Your task to perform on an android device: Clear all items from cart on costco.com. Search for logitech g pro on costco.com, select the first entry, and add it to the cart. Image 0: 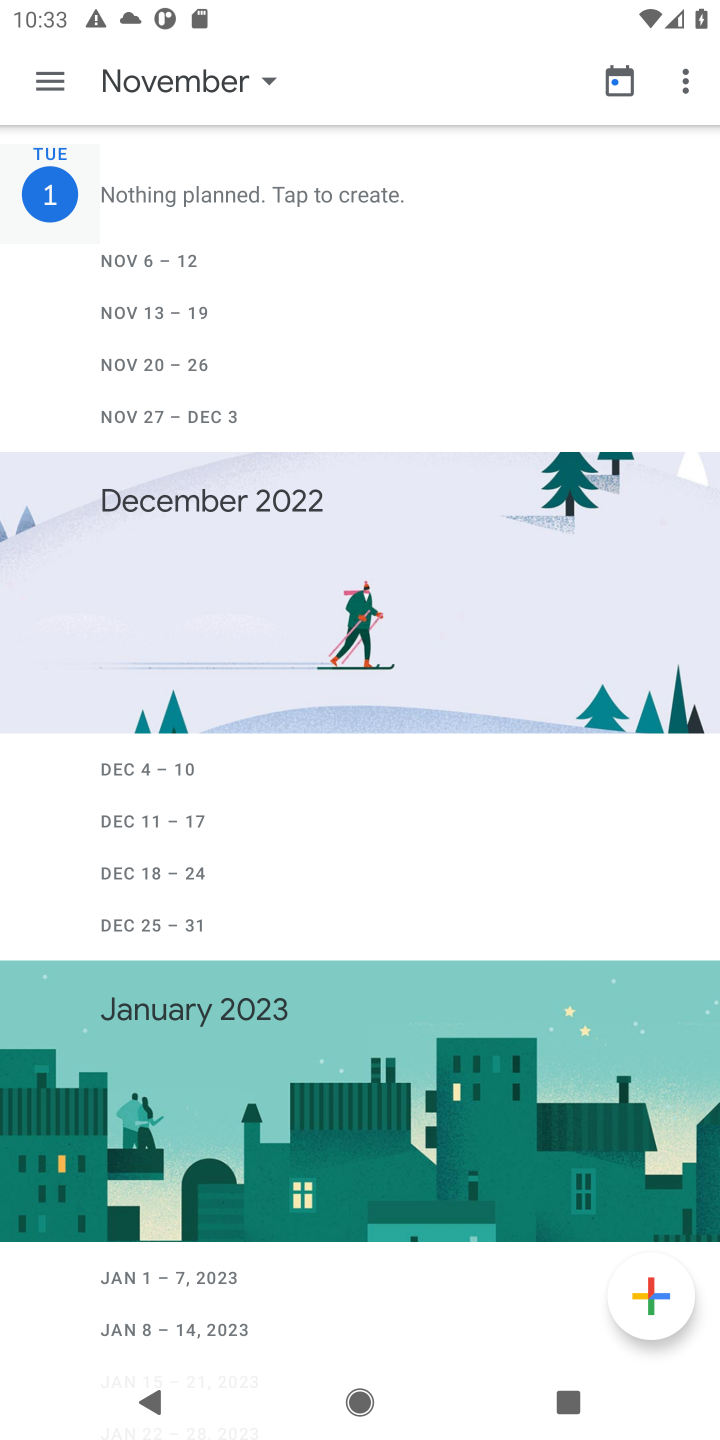
Step 0: press home button
Your task to perform on an android device: Clear all items from cart on costco.com. Search for logitech g pro on costco.com, select the first entry, and add it to the cart. Image 1: 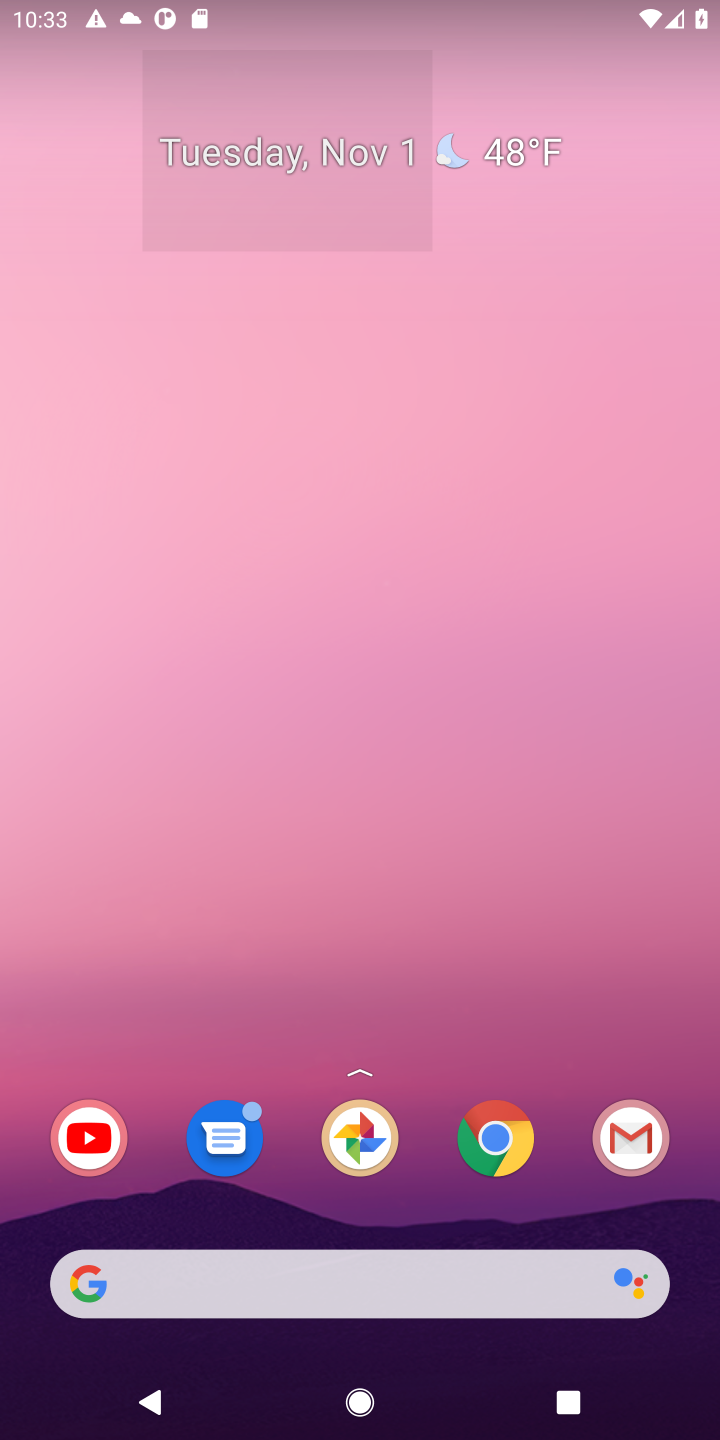
Step 1: drag from (444, 1039) to (447, 115)
Your task to perform on an android device: Clear all items from cart on costco.com. Search for logitech g pro on costco.com, select the first entry, and add it to the cart. Image 2: 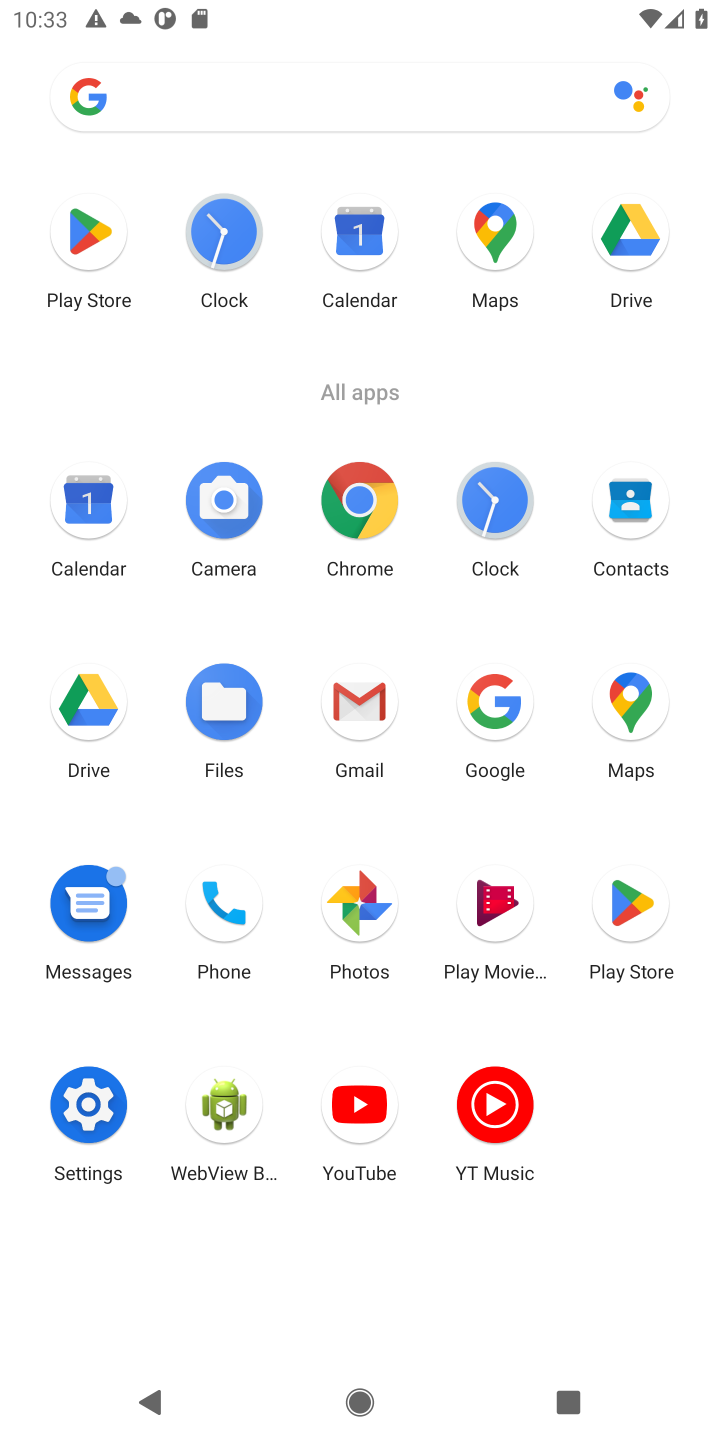
Step 2: click (371, 491)
Your task to perform on an android device: Clear all items from cart on costco.com. Search for logitech g pro on costco.com, select the first entry, and add it to the cart. Image 3: 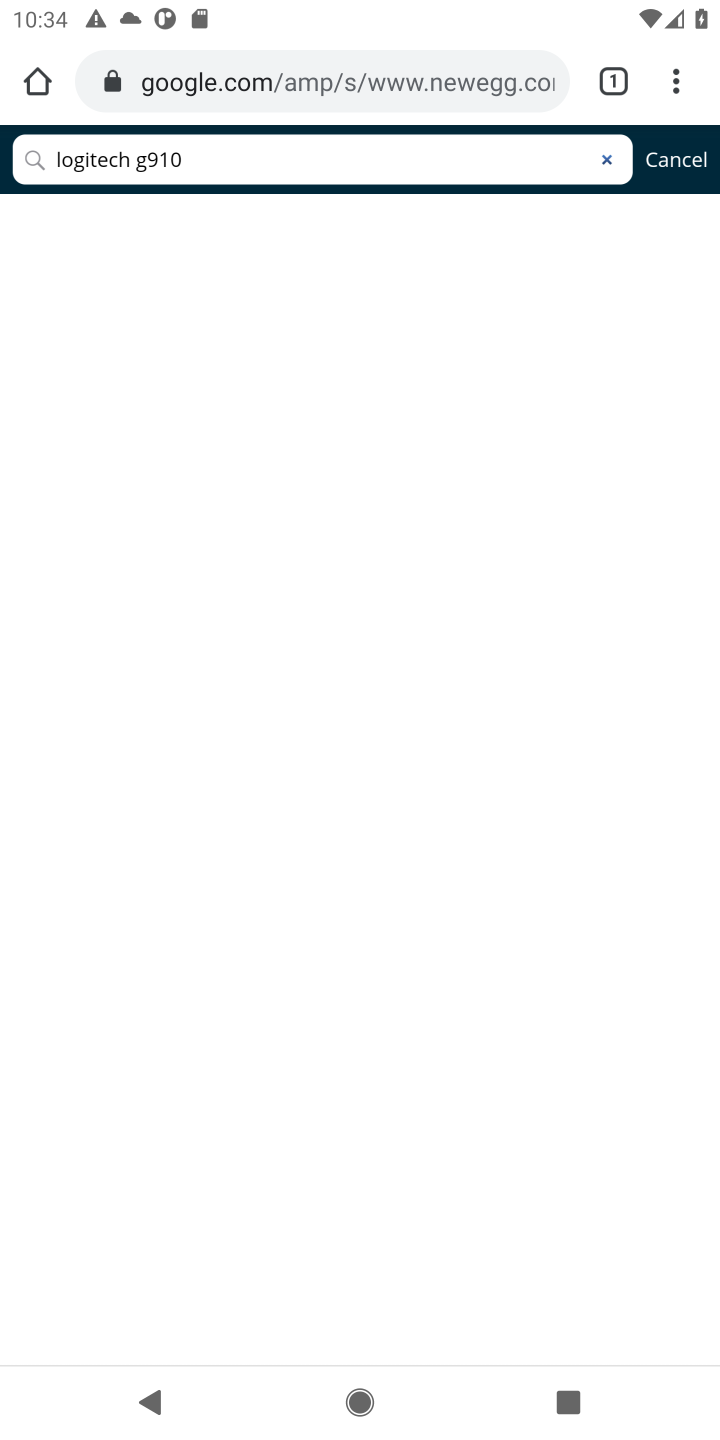
Step 3: click (244, 86)
Your task to perform on an android device: Clear all items from cart on costco.com. Search for logitech g pro on costco.com, select the first entry, and add it to the cart. Image 4: 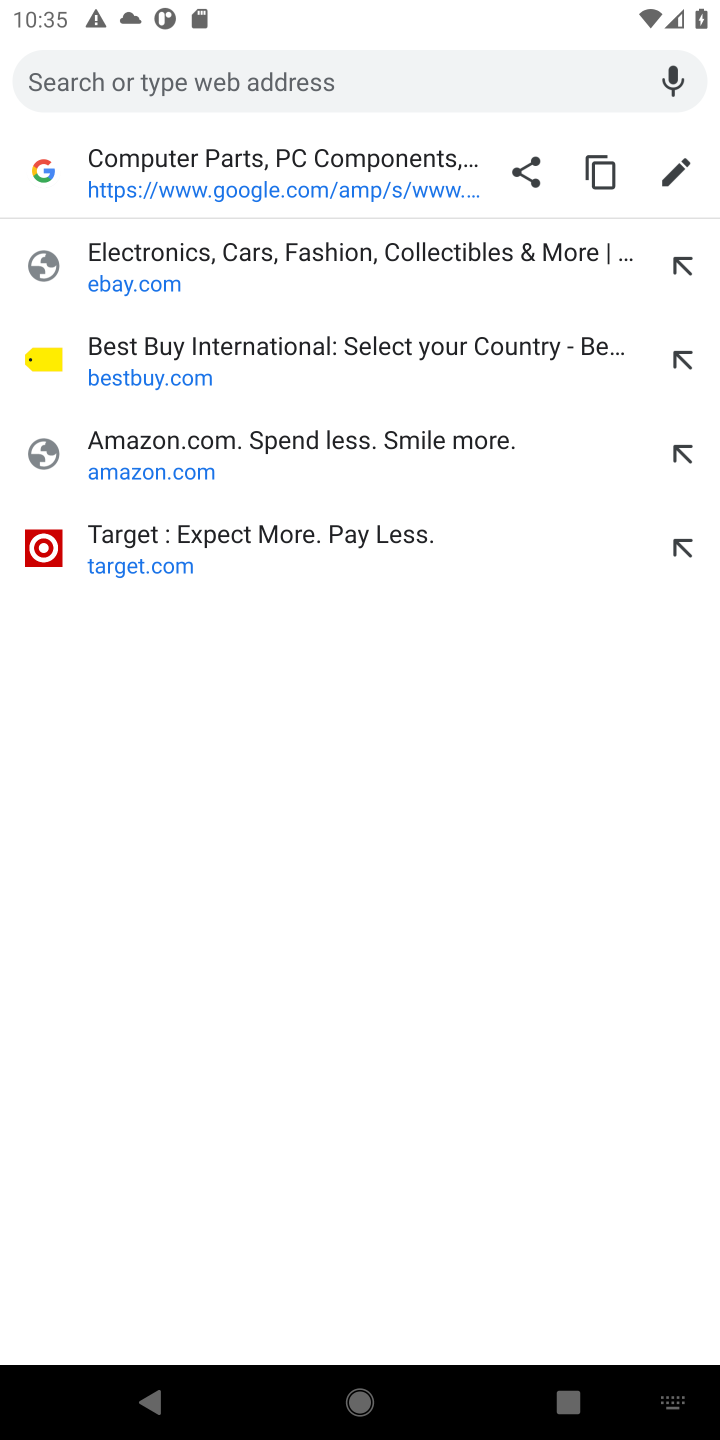
Step 4: type "costco"
Your task to perform on an android device: Clear all items from cart on costco.com. Search for logitech g pro on costco.com, select the first entry, and add it to the cart. Image 5: 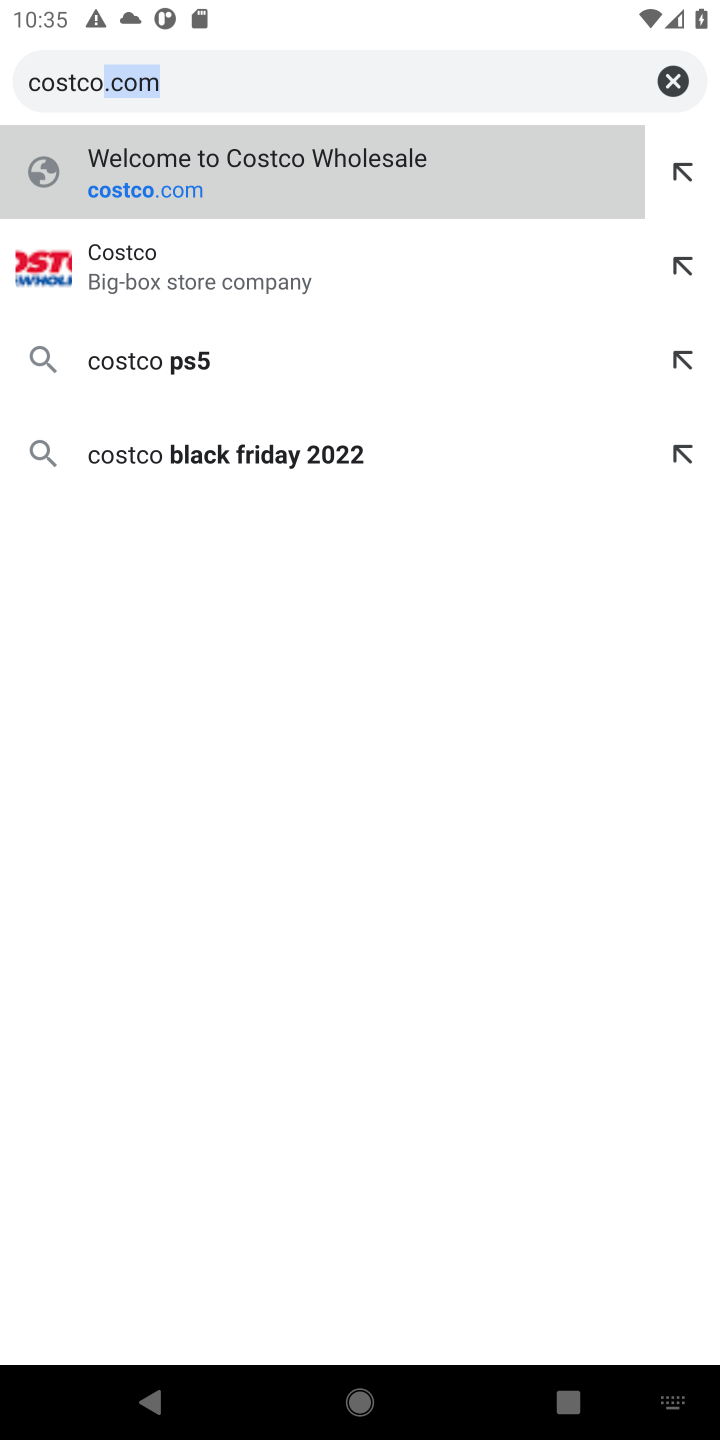
Step 5: click (194, 252)
Your task to perform on an android device: Clear all items from cart on costco.com. Search for logitech g pro on costco.com, select the first entry, and add it to the cart. Image 6: 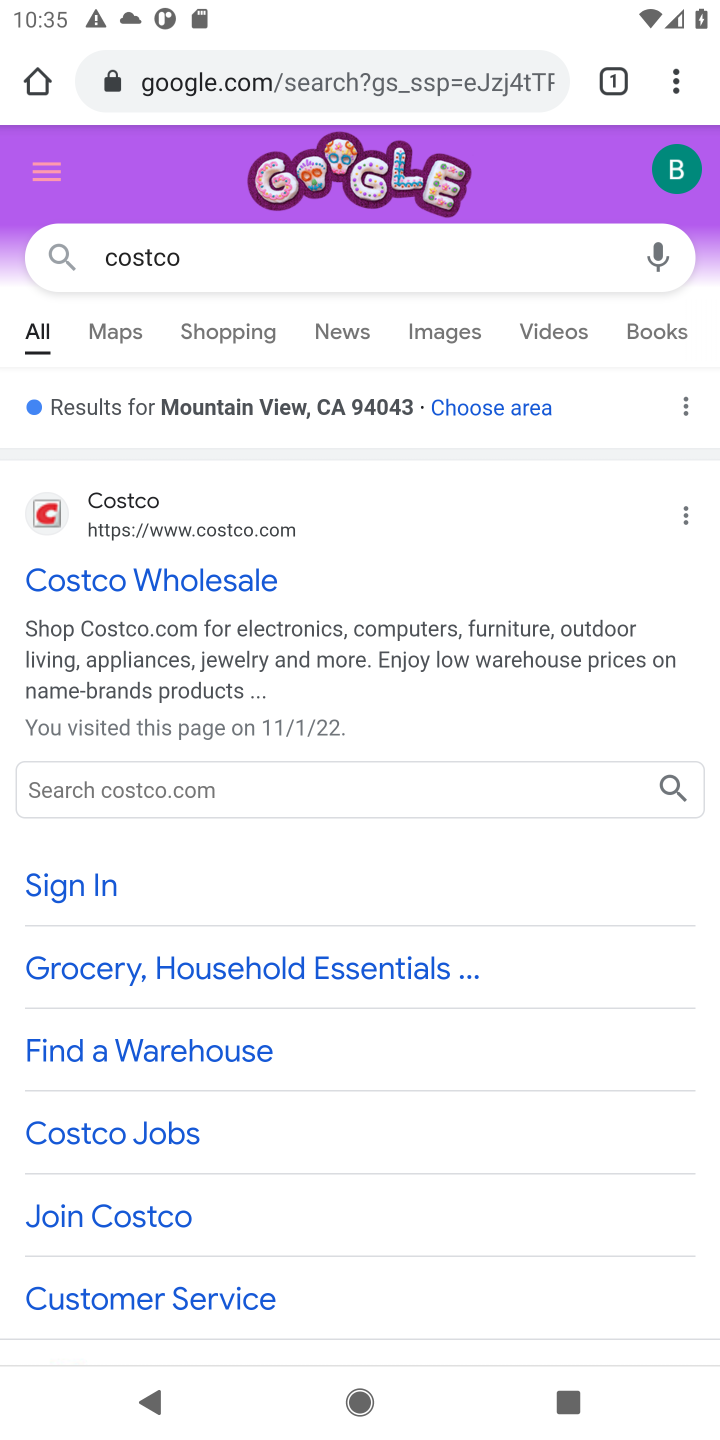
Step 6: click (215, 579)
Your task to perform on an android device: Clear all items from cart on costco.com. Search for logitech g pro on costco.com, select the first entry, and add it to the cart. Image 7: 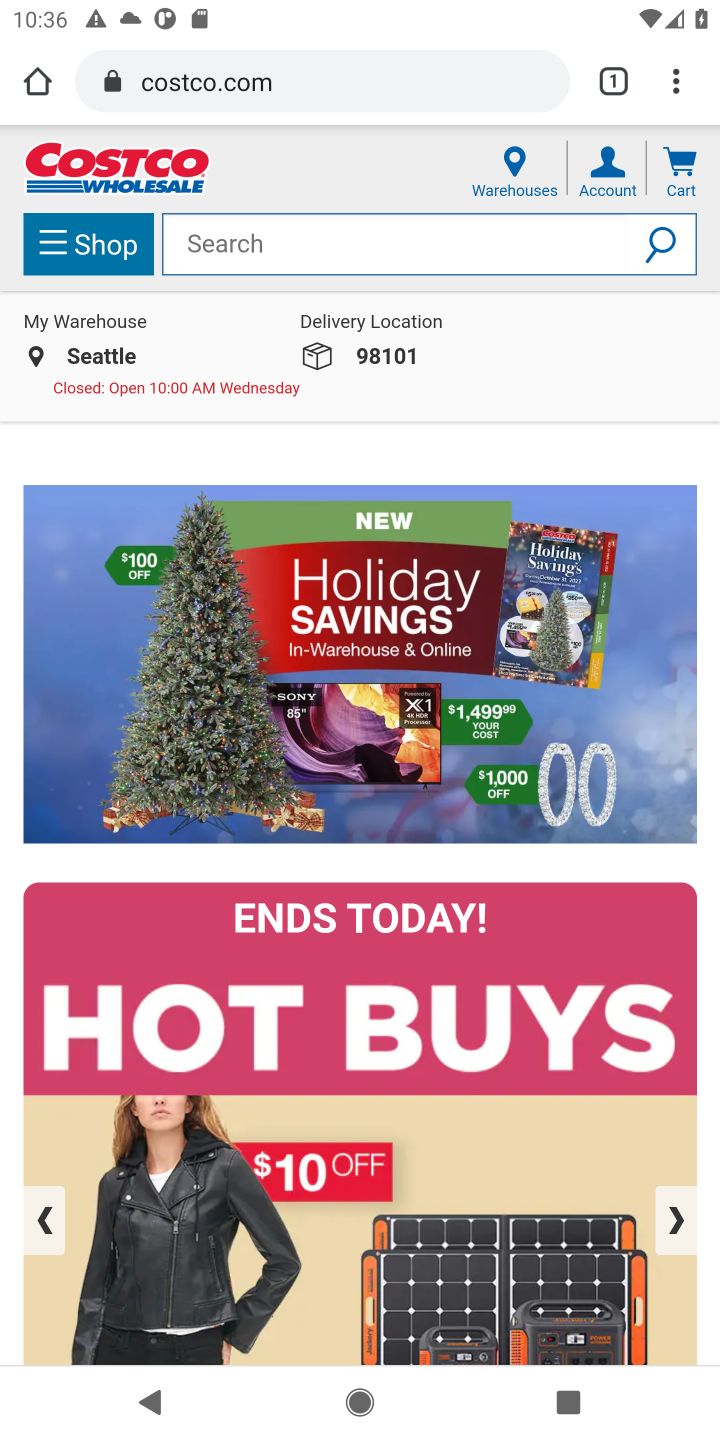
Step 7: click (271, 244)
Your task to perform on an android device: Clear all items from cart on costco.com. Search for logitech g pro on costco.com, select the first entry, and add it to the cart. Image 8: 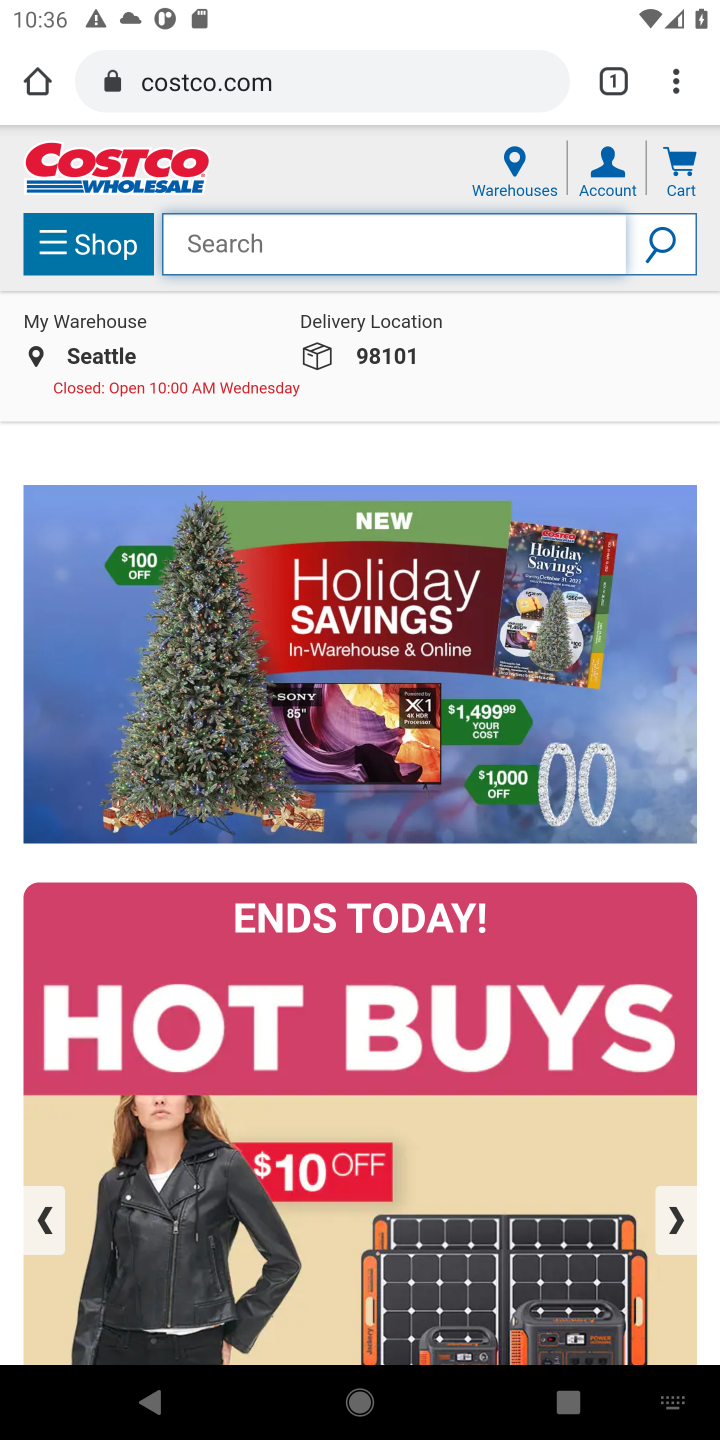
Step 8: type "logitech g pro"
Your task to perform on an android device: Clear all items from cart on costco.com. Search for logitech g pro on costco.com, select the first entry, and add it to the cart. Image 9: 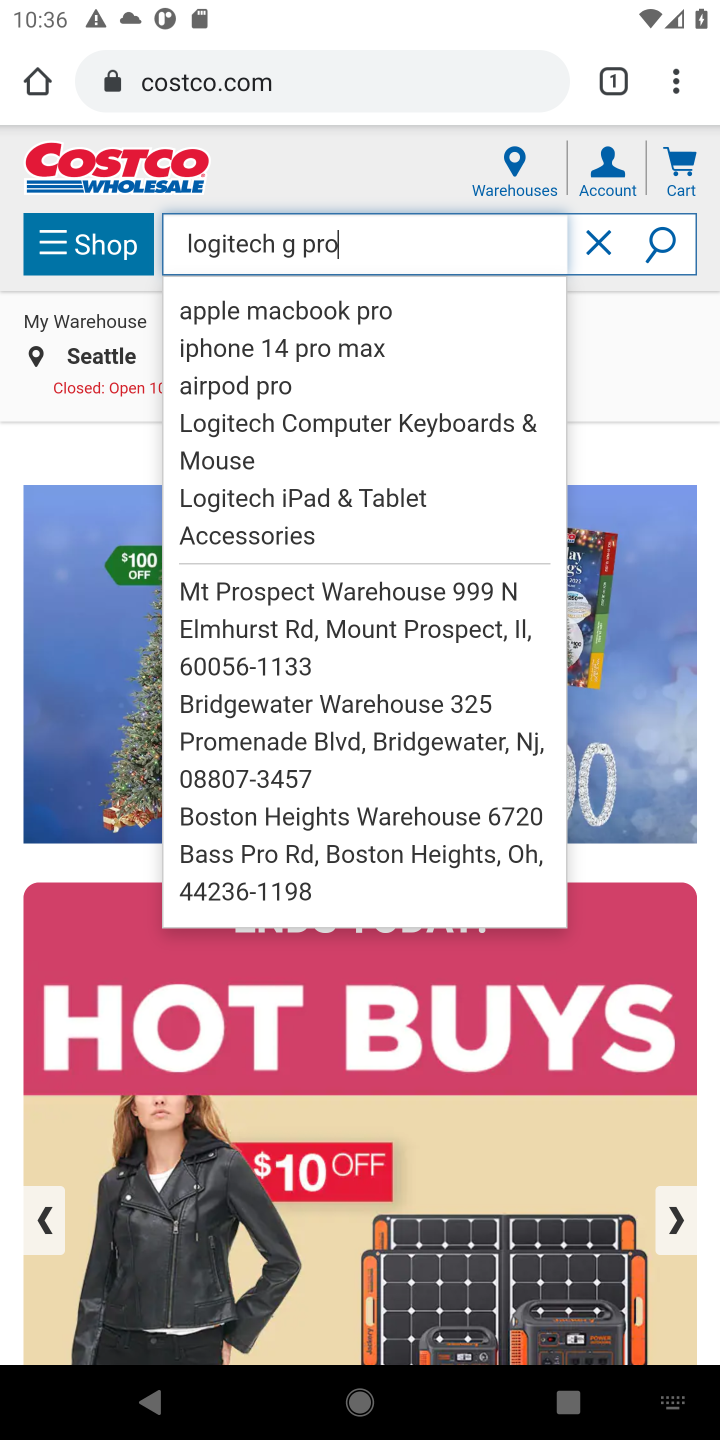
Step 9: click (268, 518)
Your task to perform on an android device: Clear all items from cart on costco.com. Search for logitech g pro on costco.com, select the first entry, and add it to the cart. Image 10: 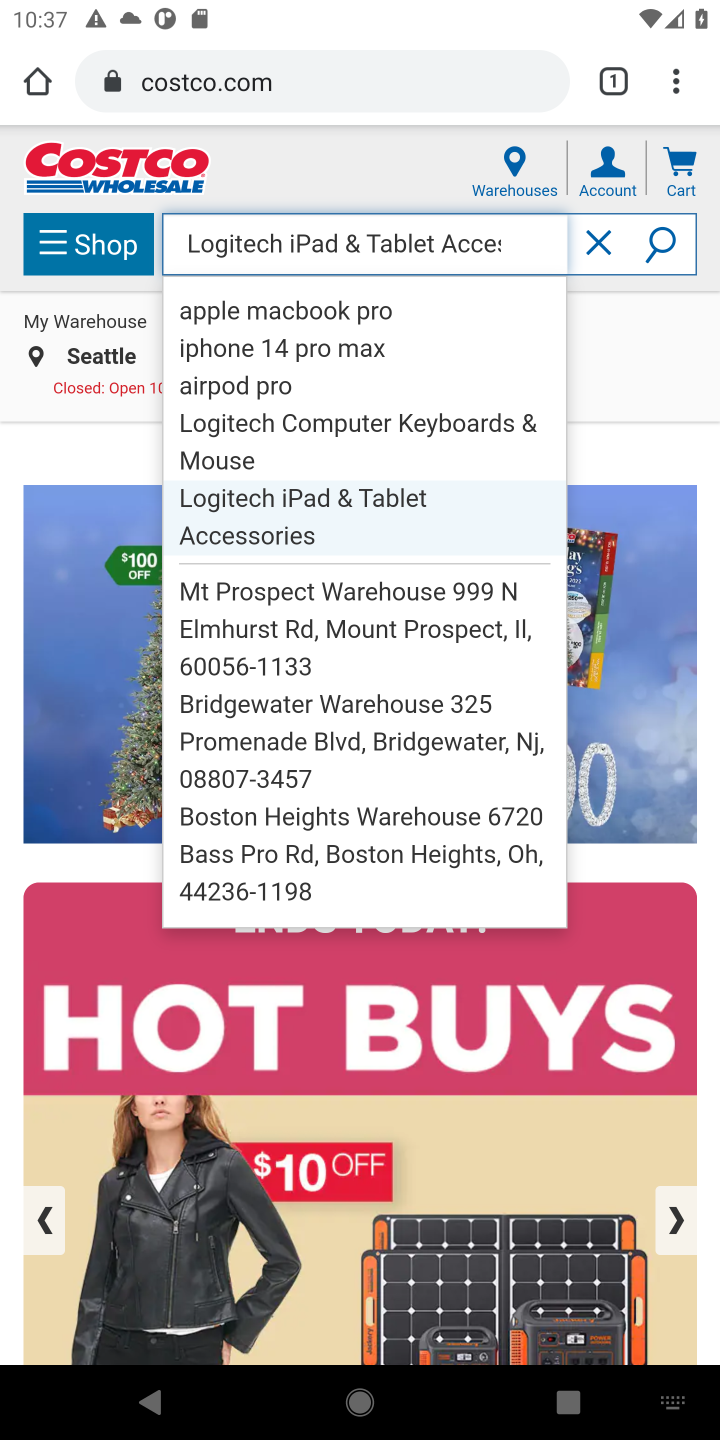
Step 10: click (662, 246)
Your task to perform on an android device: Clear all items from cart on costco.com. Search for logitech g pro on costco.com, select the first entry, and add it to the cart. Image 11: 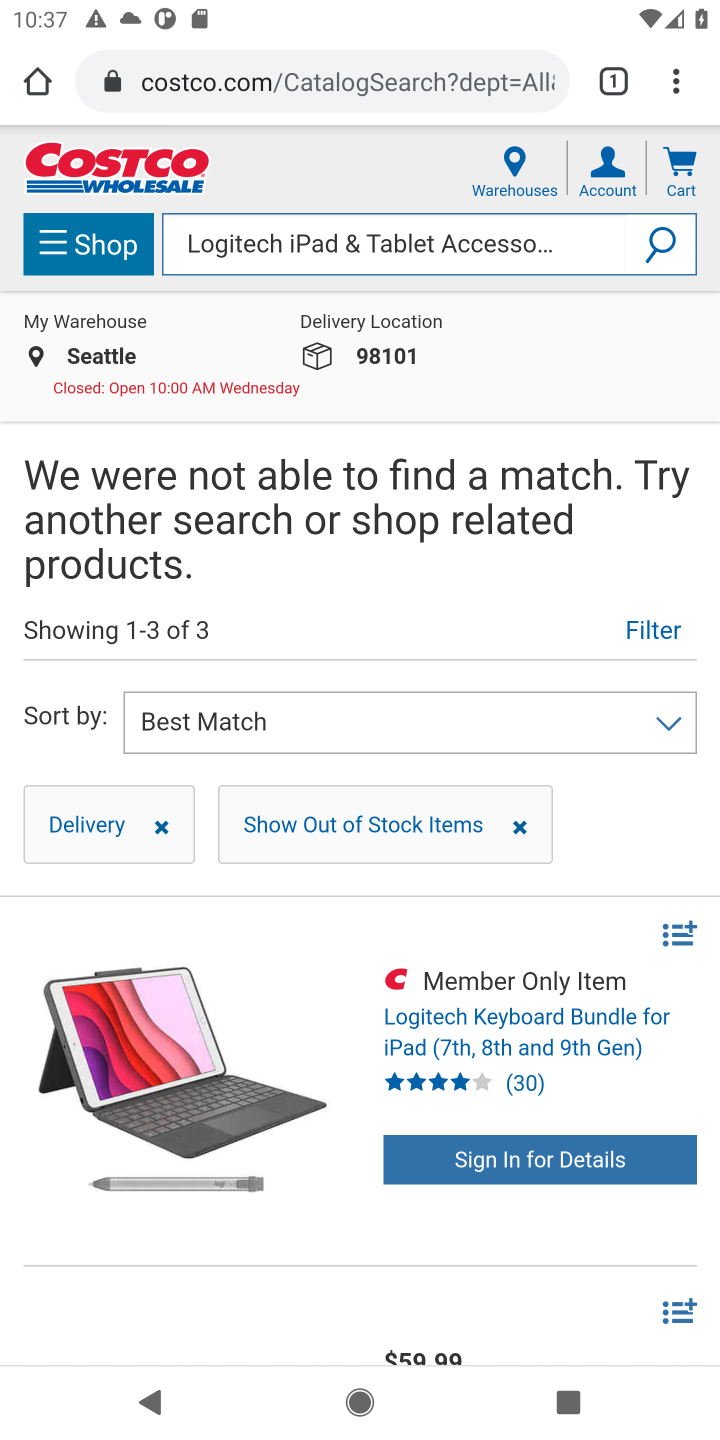
Step 11: click (433, 1033)
Your task to perform on an android device: Clear all items from cart on costco.com. Search for logitech g pro on costco.com, select the first entry, and add it to the cart. Image 12: 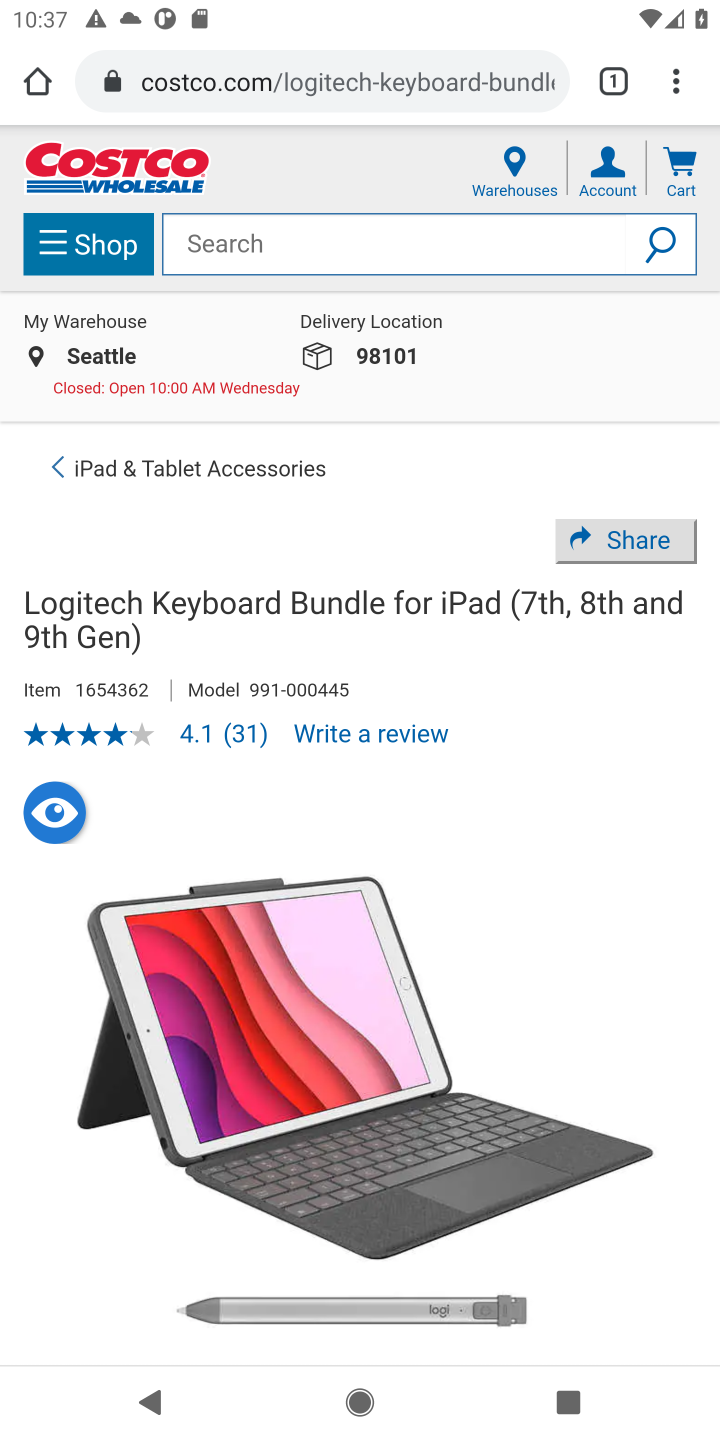
Step 12: drag from (548, 1238) to (605, 554)
Your task to perform on an android device: Clear all items from cart on costco.com. Search for logitech g pro on costco.com, select the first entry, and add it to the cart. Image 13: 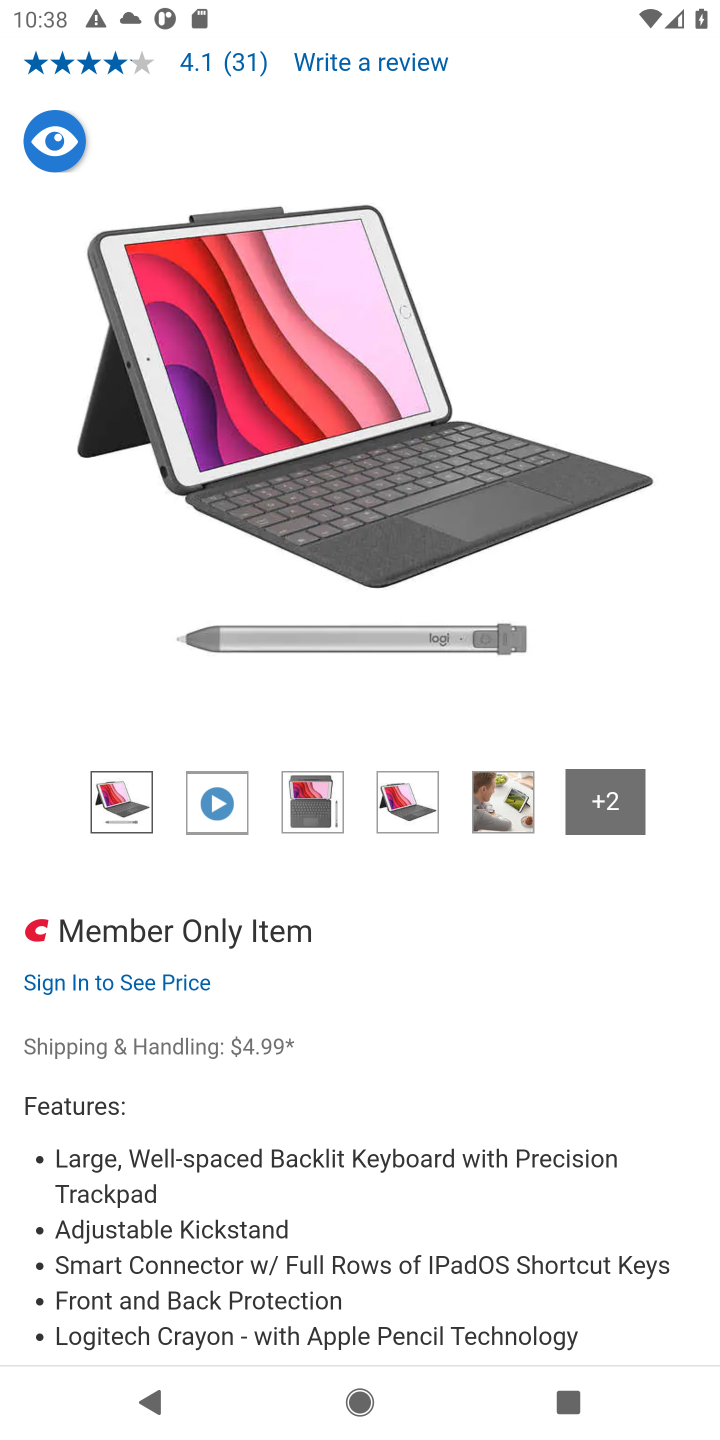
Step 13: drag from (354, 1239) to (452, 490)
Your task to perform on an android device: Clear all items from cart on costco.com. Search for logitech g pro on costco.com, select the first entry, and add it to the cart. Image 14: 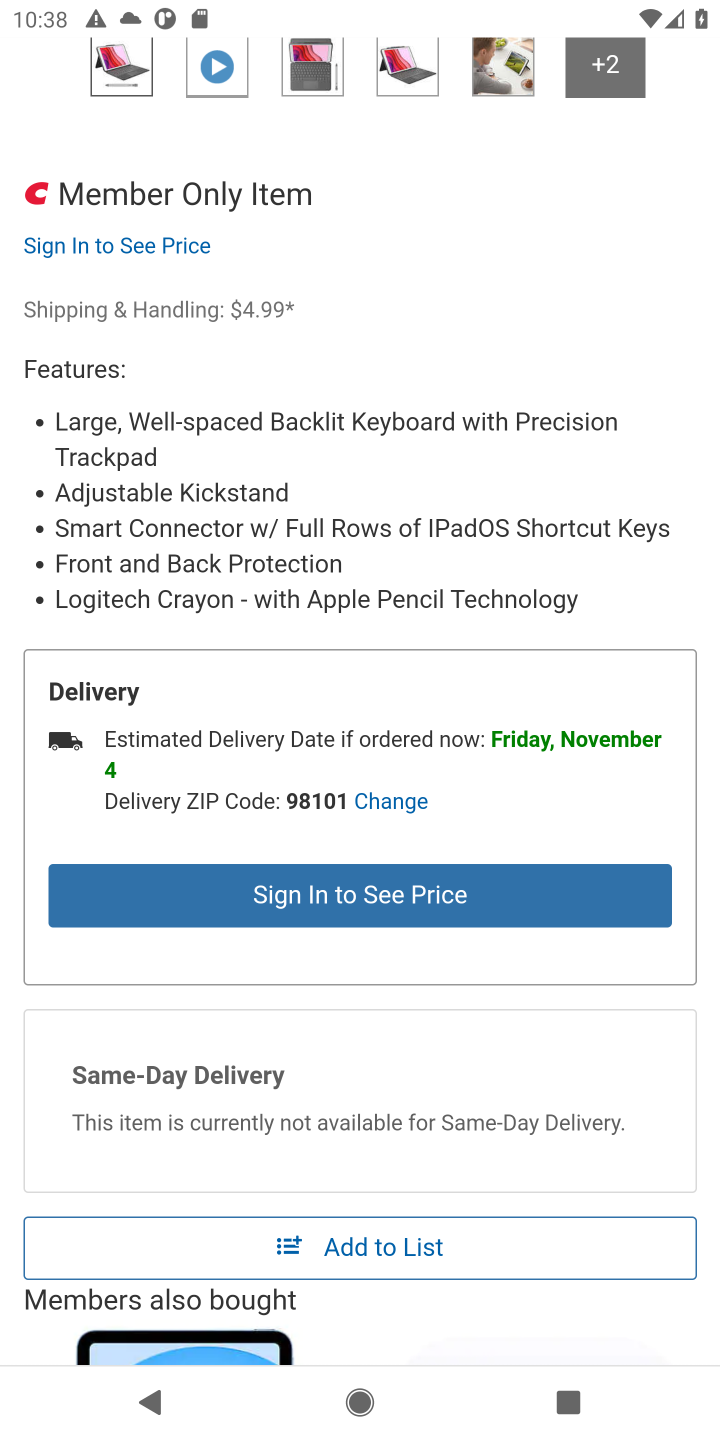
Step 14: click (321, 905)
Your task to perform on an android device: Clear all items from cart on costco.com. Search for logitech g pro on costco.com, select the first entry, and add it to the cart. Image 15: 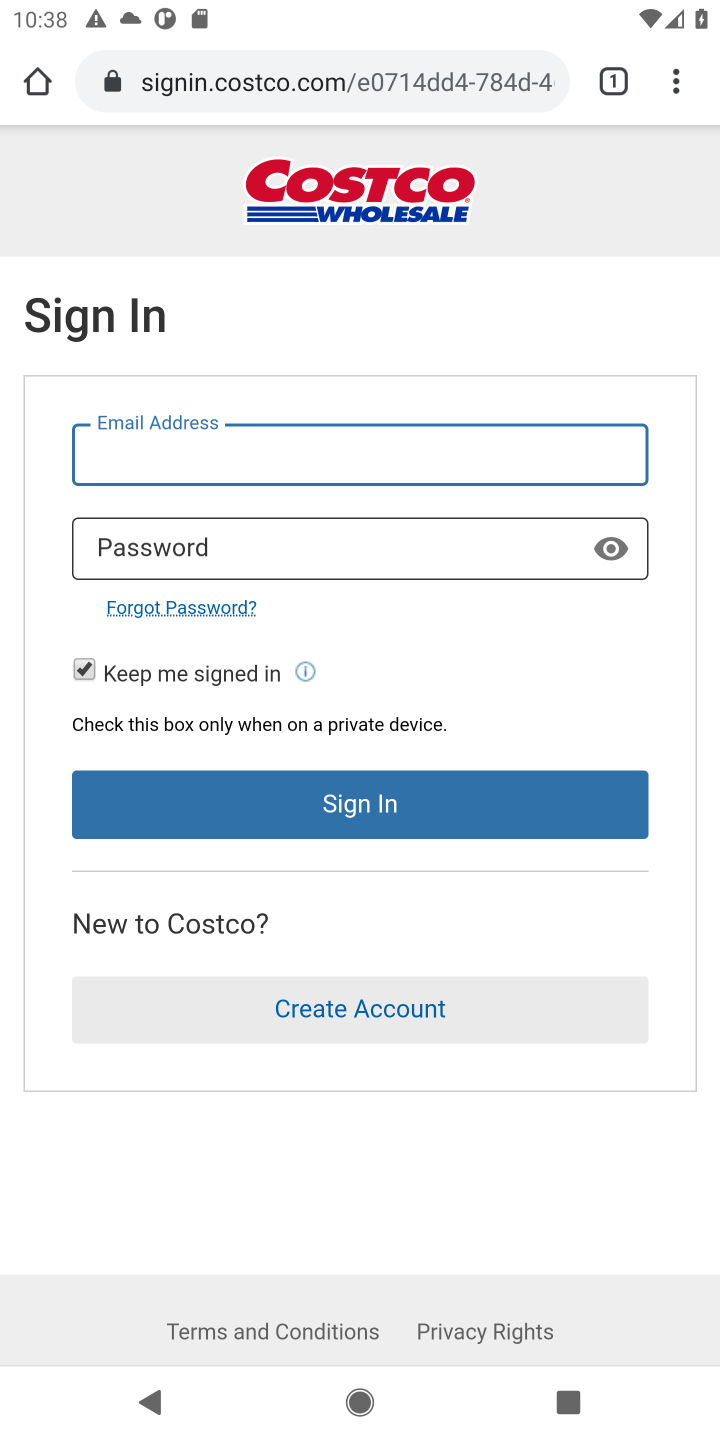
Step 15: task complete